Your task to perform on an android device: Go to Google Image 0: 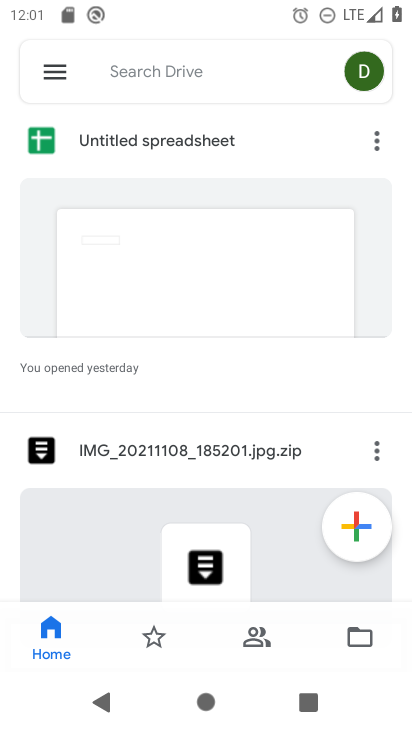
Step 0: press home button
Your task to perform on an android device: Go to Google Image 1: 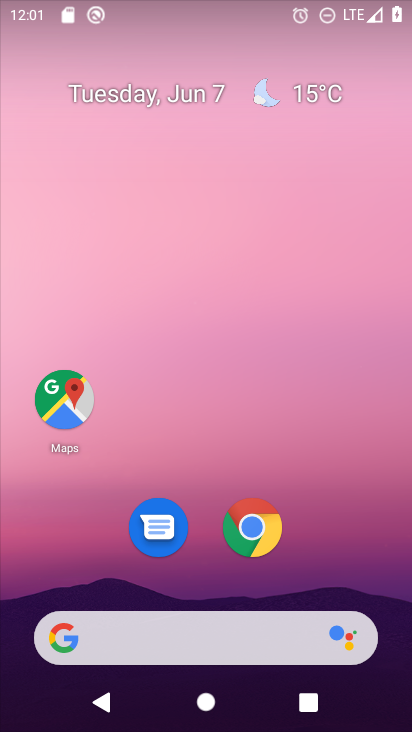
Step 1: drag from (355, 547) to (349, 122)
Your task to perform on an android device: Go to Google Image 2: 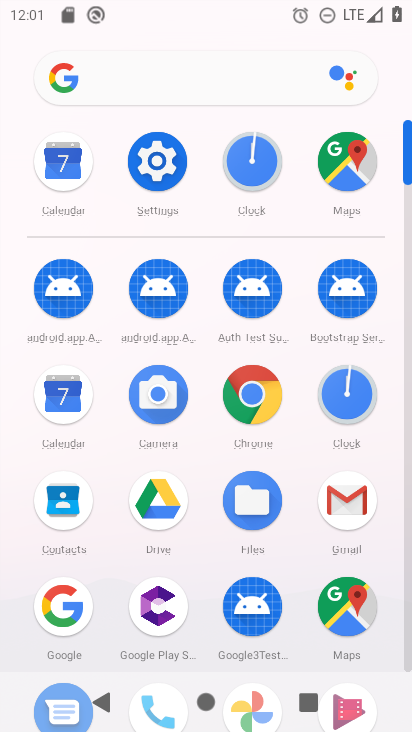
Step 2: drag from (201, 548) to (205, 322)
Your task to perform on an android device: Go to Google Image 3: 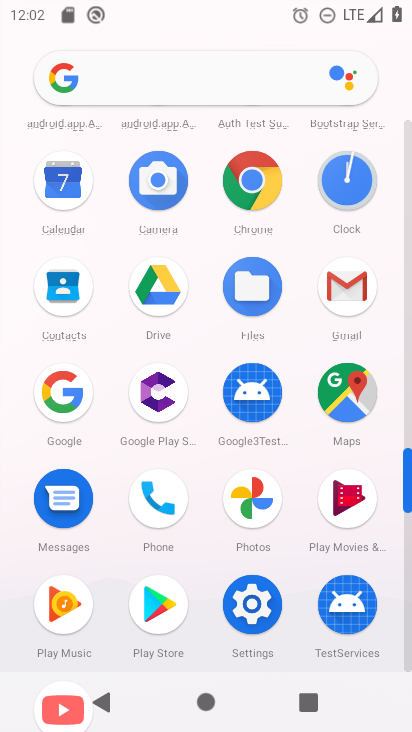
Step 3: click (63, 397)
Your task to perform on an android device: Go to Google Image 4: 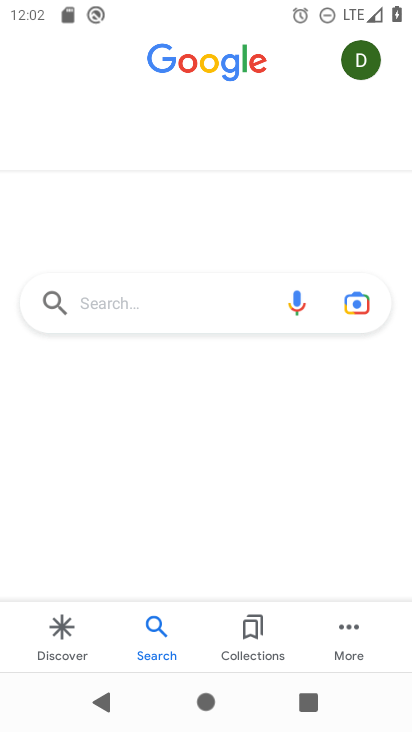
Step 4: task complete